Your task to perform on an android device: Open my contact list Image 0: 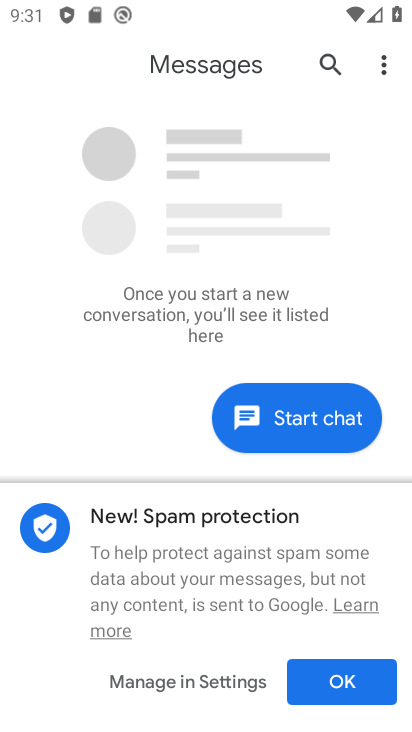
Step 0: press back button
Your task to perform on an android device: Open my contact list Image 1: 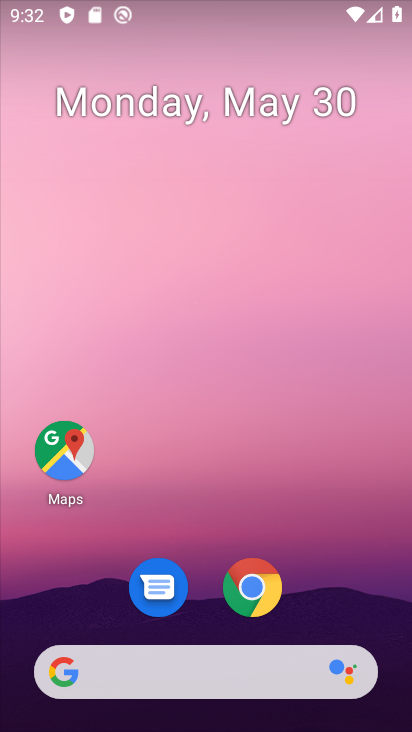
Step 1: drag from (329, 577) to (246, 28)
Your task to perform on an android device: Open my contact list Image 2: 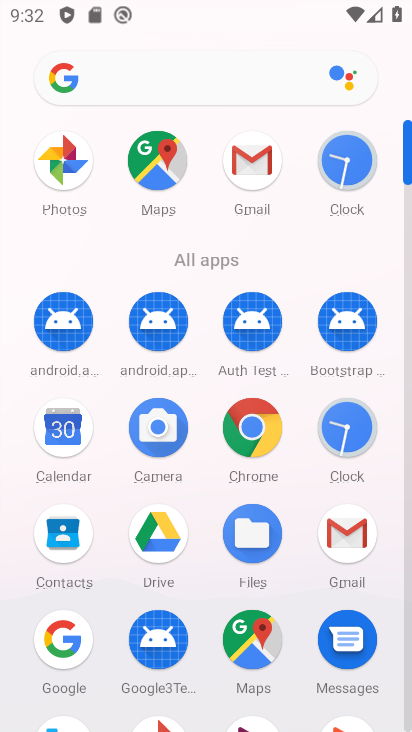
Step 2: drag from (7, 629) to (41, 275)
Your task to perform on an android device: Open my contact list Image 3: 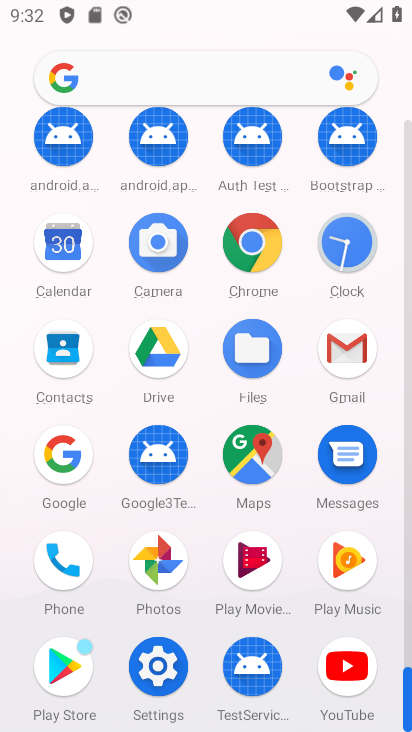
Step 3: click (63, 345)
Your task to perform on an android device: Open my contact list Image 4: 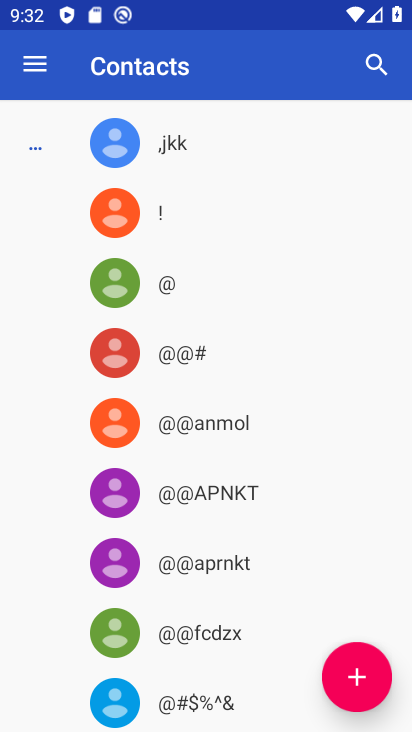
Step 4: task complete